Your task to perform on an android device: remove spam from my inbox in the gmail app Image 0: 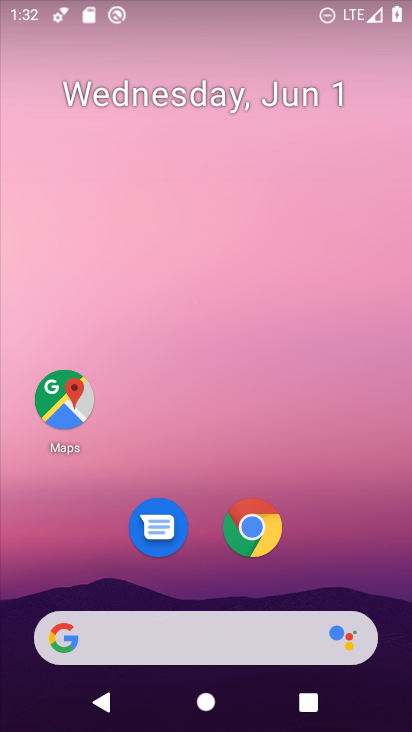
Step 0: drag from (116, 668) to (276, 40)
Your task to perform on an android device: remove spam from my inbox in the gmail app Image 1: 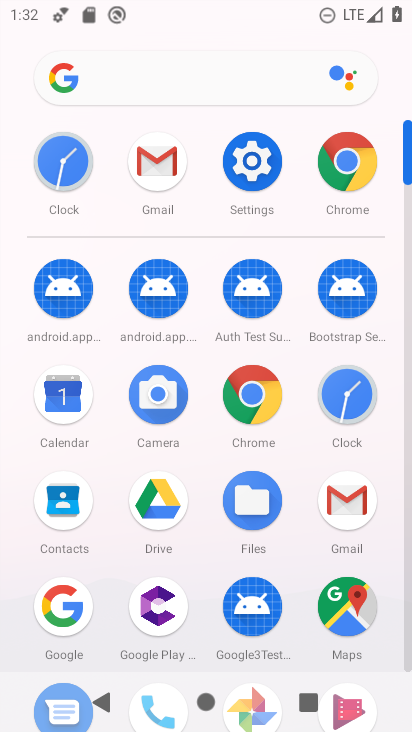
Step 1: click (144, 168)
Your task to perform on an android device: remove spam from my inbox in the gmail app Image 2: 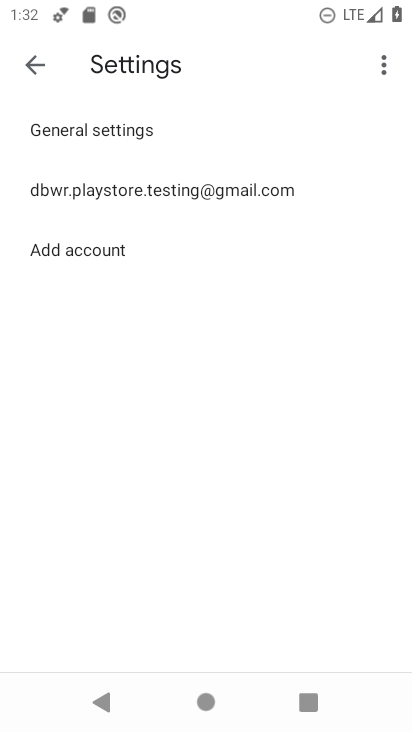
Step 2: click (44, 61)
Your task to perform on an android device: remove spam from my inbox in the gmail app Image 3: 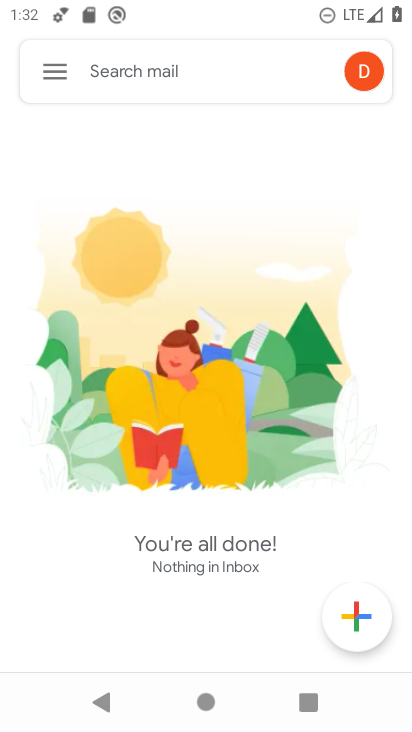
Step 3: click (61, 77)
Your task to perform on an android device: remove spam from my inbox in the gmail app Image 4: 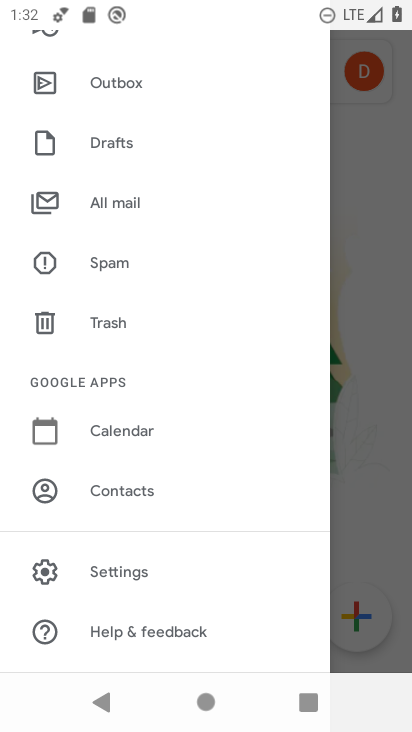
Step 4: click (86, 252)
Your task to perform on an android device: remove spam from my inbox in the gmail app Image 5: 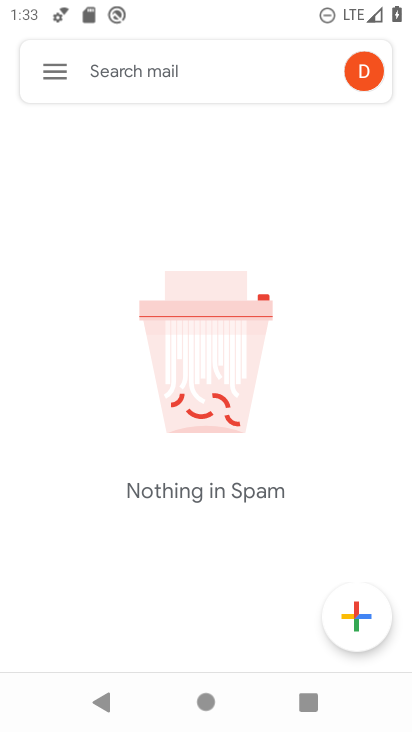
Step 5: task complete